Your task to perform on an android device: Open Amazon Image 0: 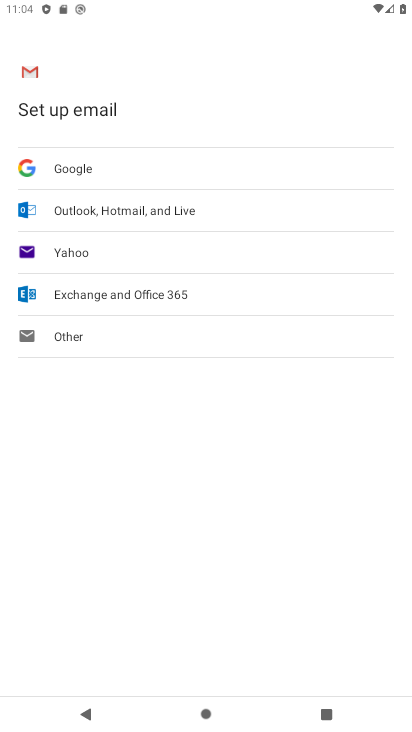
Step 0: press home button
Your task to perform on an android device: Open Amazon Image 1: 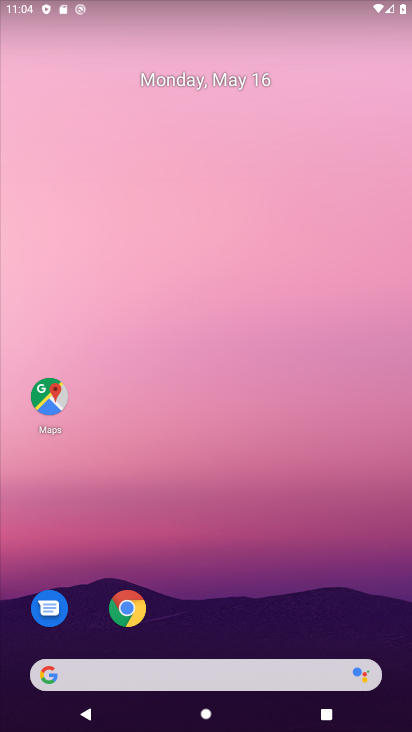
Step 1: click (128, 618)
Your task to perform on an android device: Open Amazon Image 2: 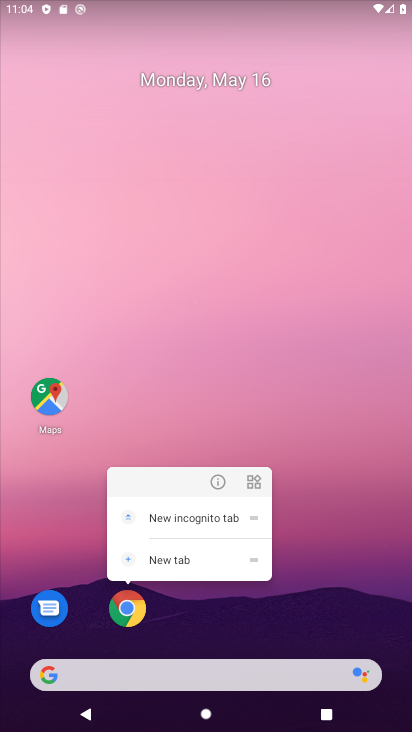
Step 2: click (134, 605)
Your task to perform on an android device: Open Amazon Image 3: 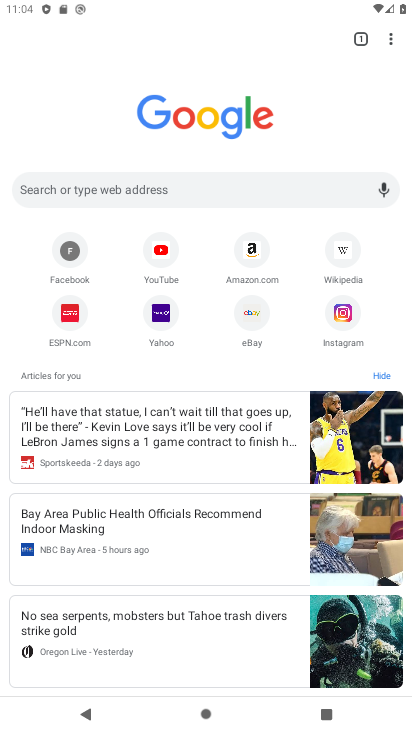
Step 3: click (247, 252)
Your task to perform on an android device: Open Amazon Image 4: 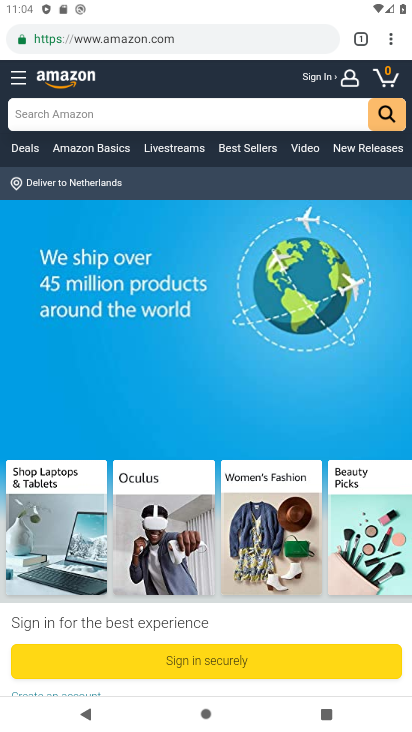
Step 4: task complete